Your task to perform on an android device: set default search engine in the chrome app Image 0: 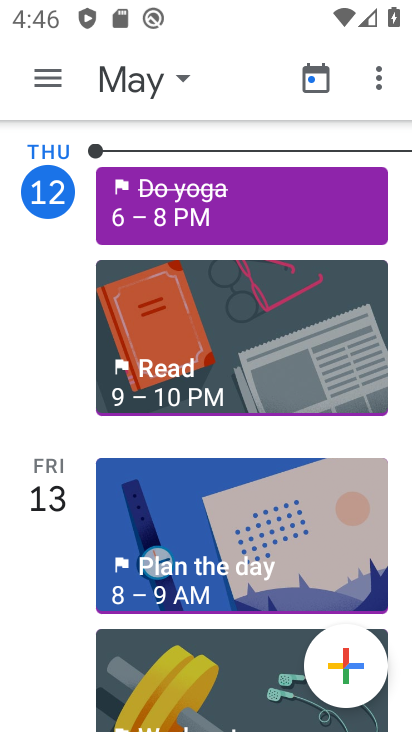
Step 0: press back button
Your task to perform on an android device: set default search engine in the chrome app Image 1: 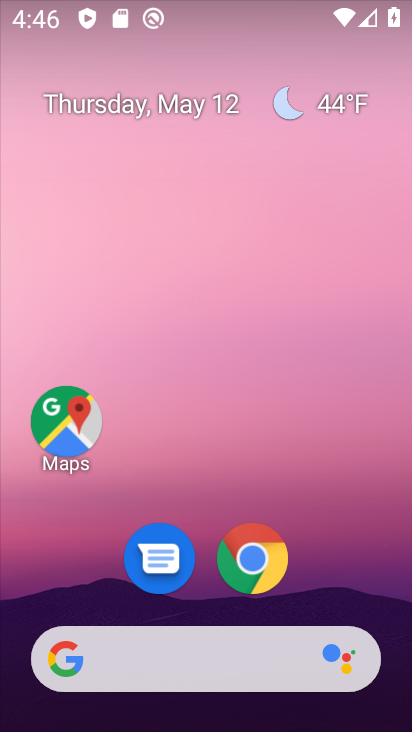
Step 1: drag from (328, 562) to (257, 76)
Your task to perform on an android device: set default search engine in the chrome app Image 2: 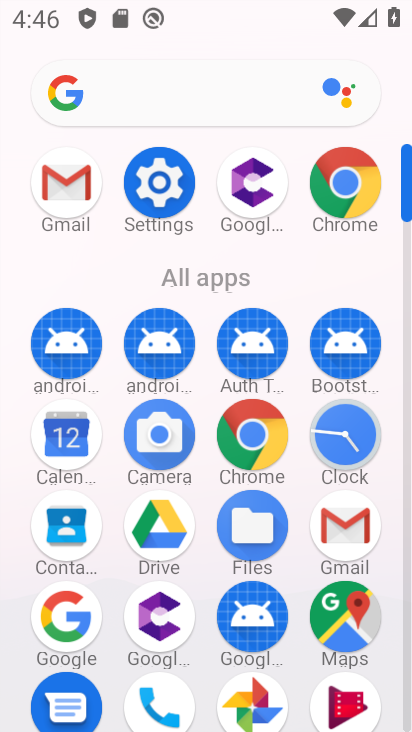
Step 2: drag from (0, 565) to (11, 315)
Your task to perform on an android device: set default search engine in the chrome app Image 3: 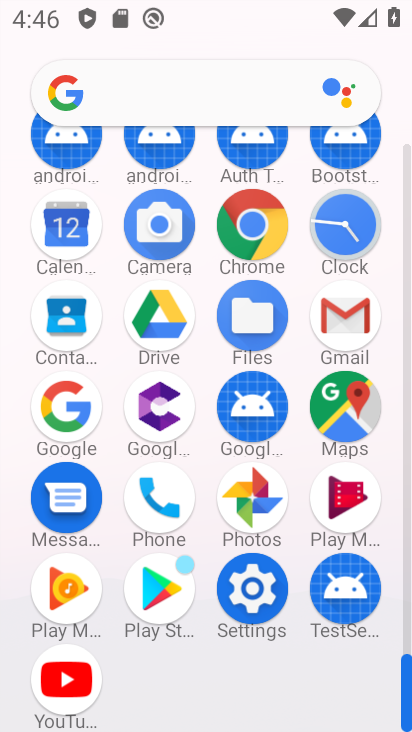
Step 3: click (251, 224)
Your task to perform on an android device: set default search engine in the chrome app Image 4: 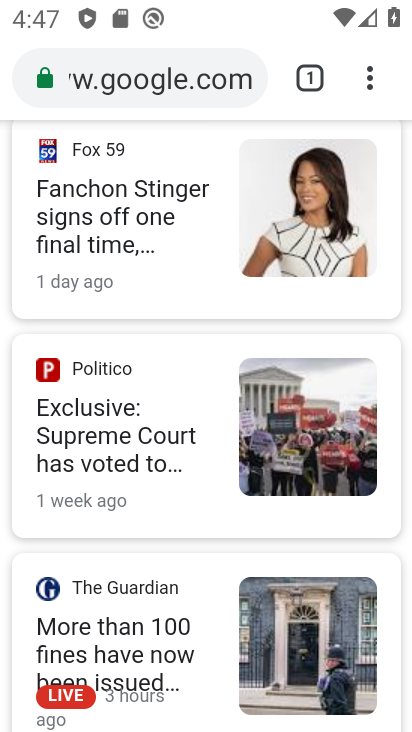
Step 4: drag from (374, 74) to (183, 620)
Your task to perform on an android device: set default search engine in the chrome app Image 5: 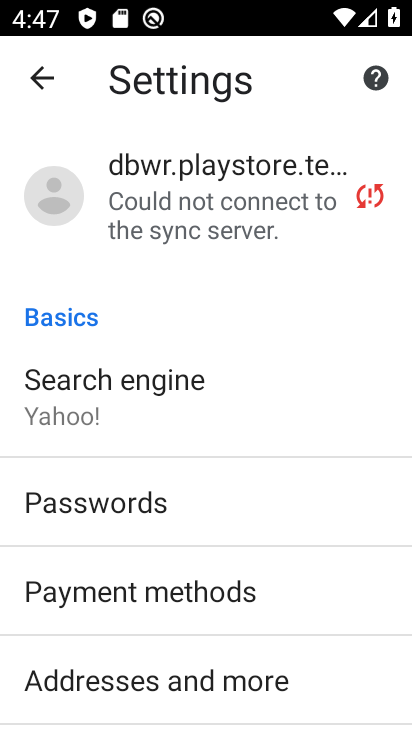
Step 5: drag from (216, 568) to (207, 358)
Your task to perform on an android device: set default search engine in the chrome app Image 6: 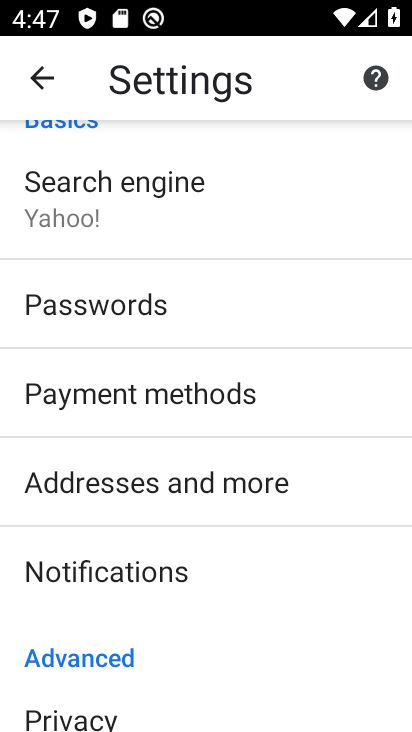
Step 6: click (168, 237)
Your task to perform on an android device: set default search engine in the chrome app Image 7: 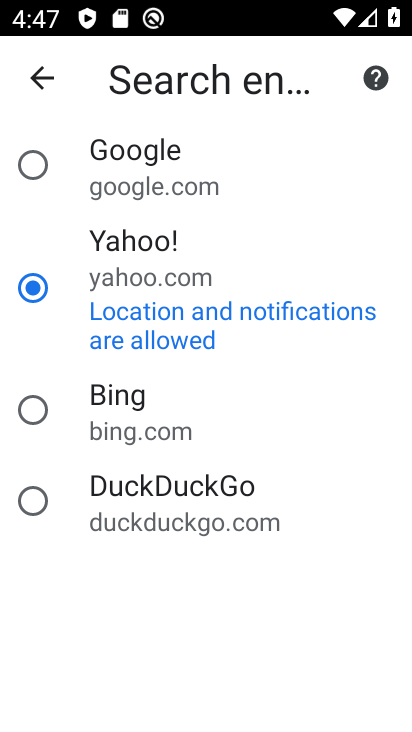
Step 7: click (169, 182)
Your task to perform on an android device: set default search engine in the chrome app Image 8: 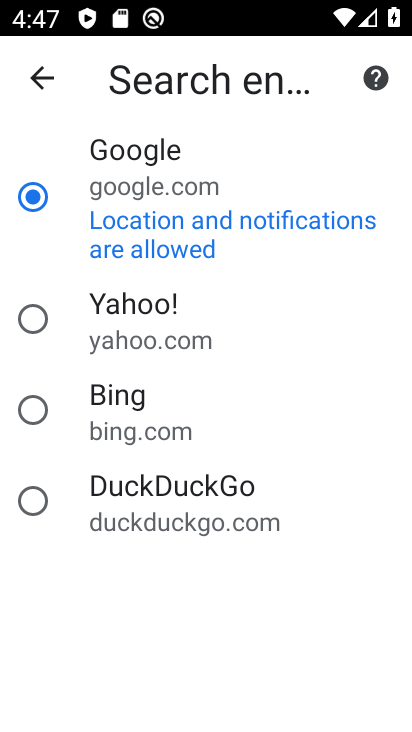
Step 8: task complete